Your task to perform on an android device: Open Google Chrome Image 0: 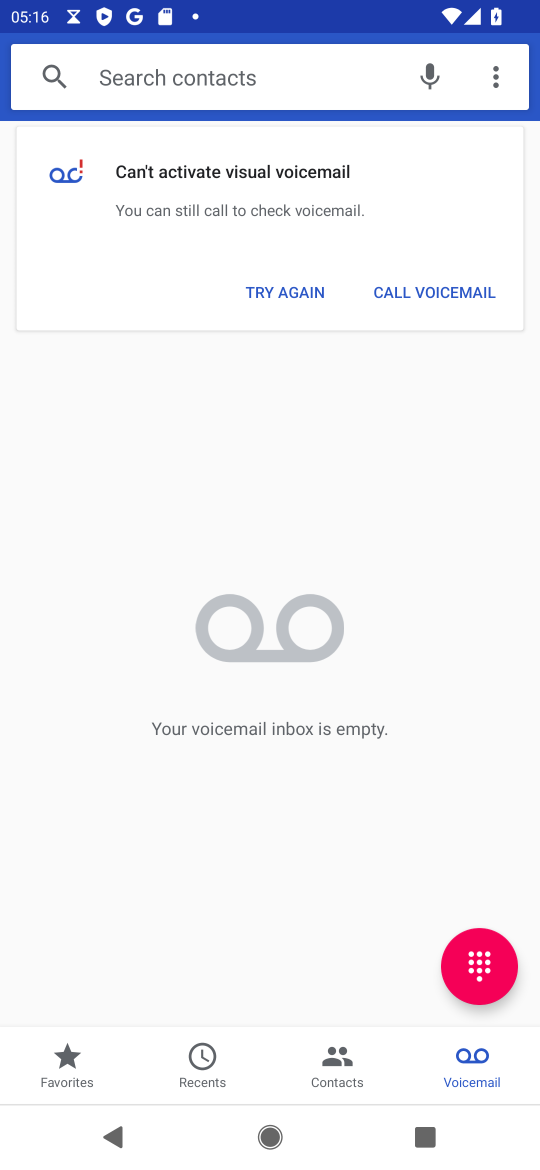
Step 0: press home button
Your task to perform on an android device: Open Google Chrome Image 1: 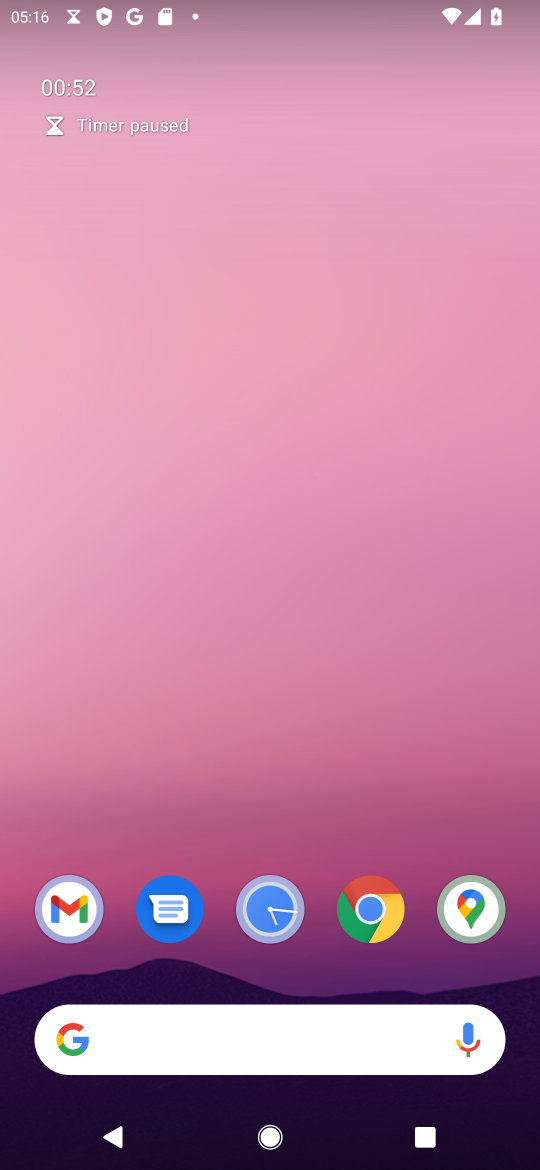
Step 1: click (367, 910)
Your task to perform on an android device: Open Google Chrome Image 2: 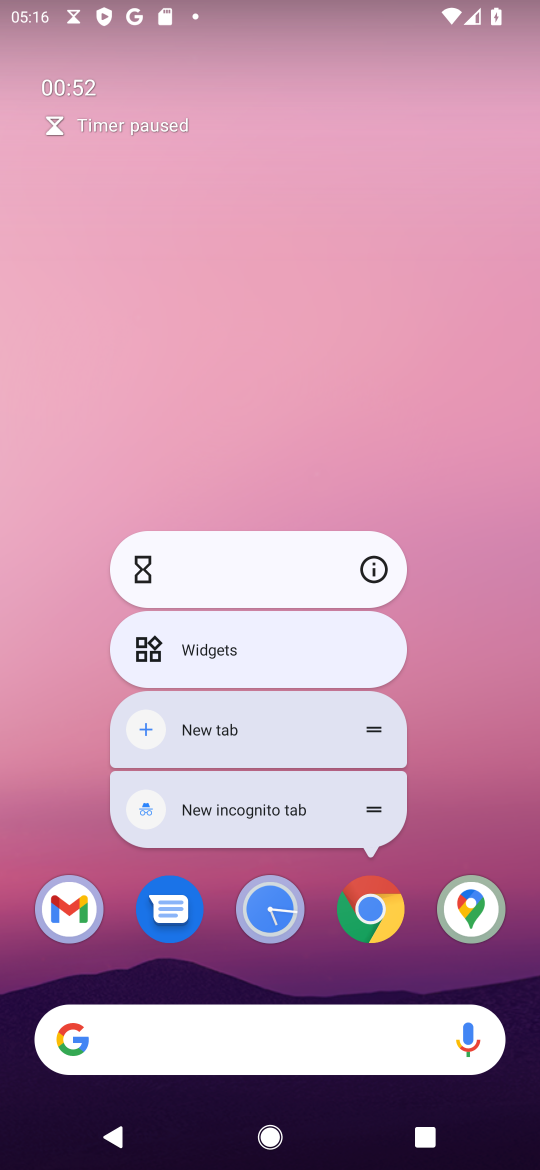
Step 2: click (366, 910)
Your task to perform on an android device: Open Google Chrome Image 3: 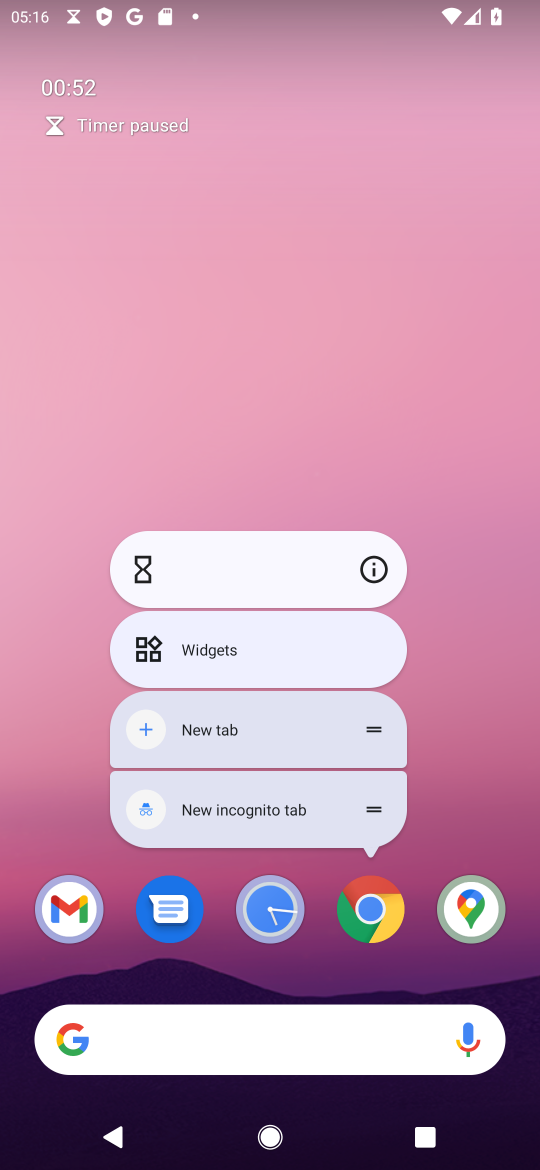
Step 3: click (373, 903)
Your task to perform on an android device: Open Google Chrome Image 4: 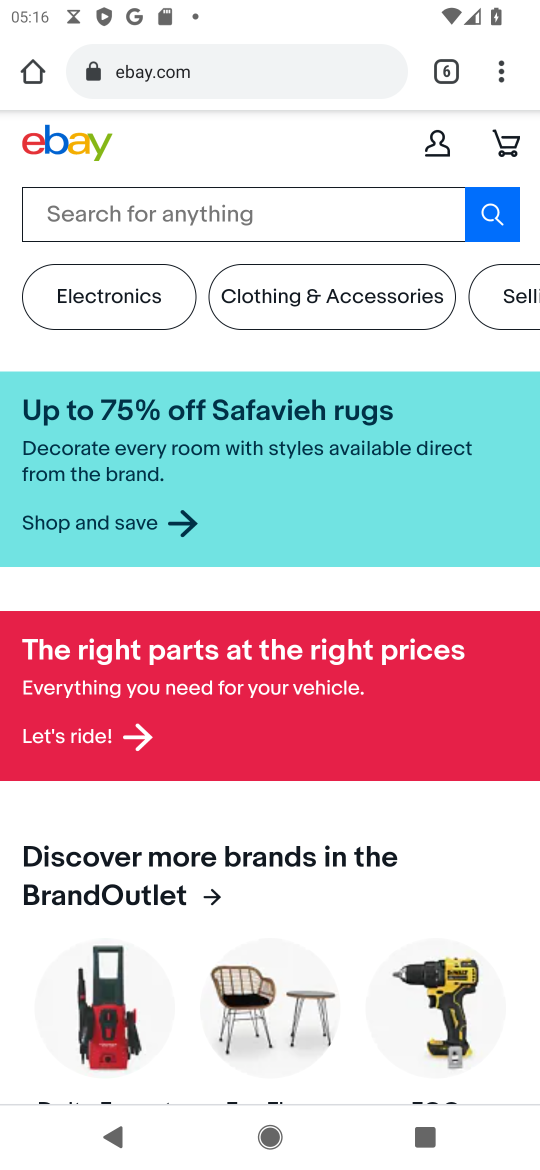
Step 4: task complete